Your task to perform on an android device: Play the last video I watched on Youtube Image 0: 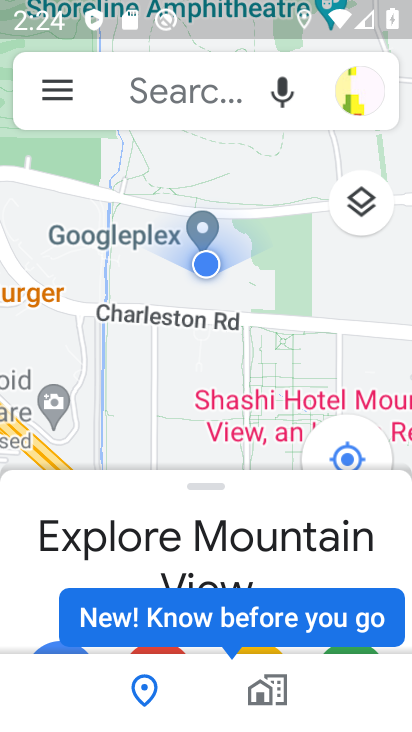
Step 0: press home button
Your task to perform on an android device: Play the last video I watched on Youtube Image 1: 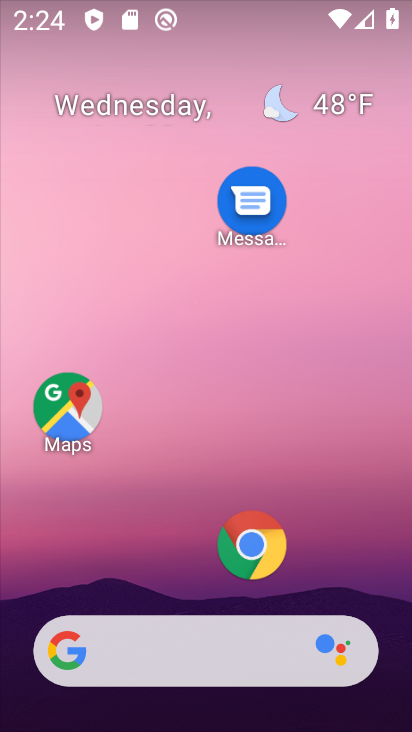
Step 1: drag from (107, 517) to (221, 6)
Your task to perform on an android device: Play the last video I watched on Youtube Image 2: 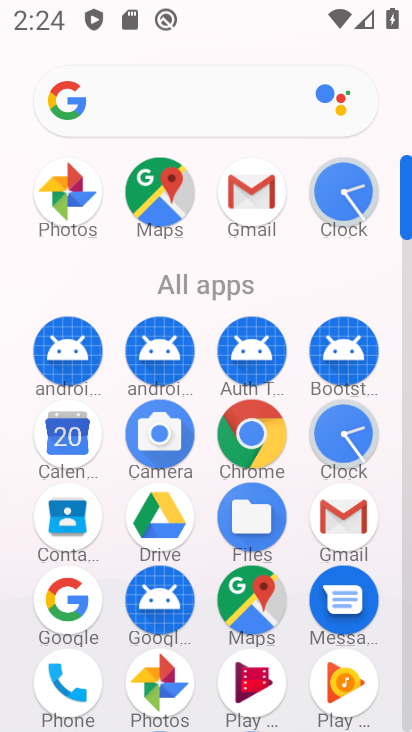
Step 2: drag from (205, 526) to (260, 170)
Your task to perform on an android device: Play the last video I watched on Youtube Image 3: 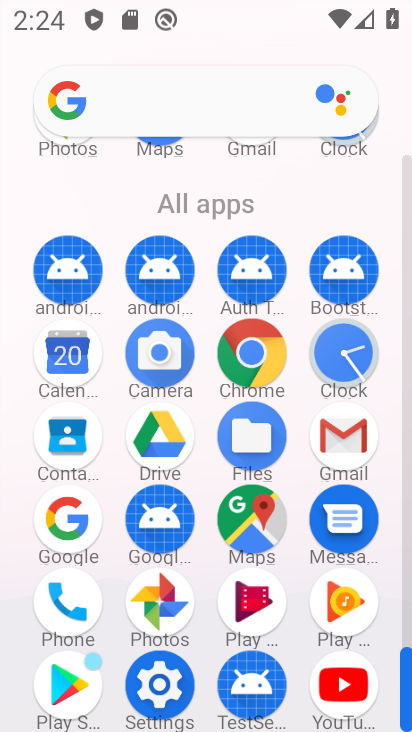
Step 3: click (336, 686)
Your task to perform on an android device: Play the last video I watched on Youtube Image 4: 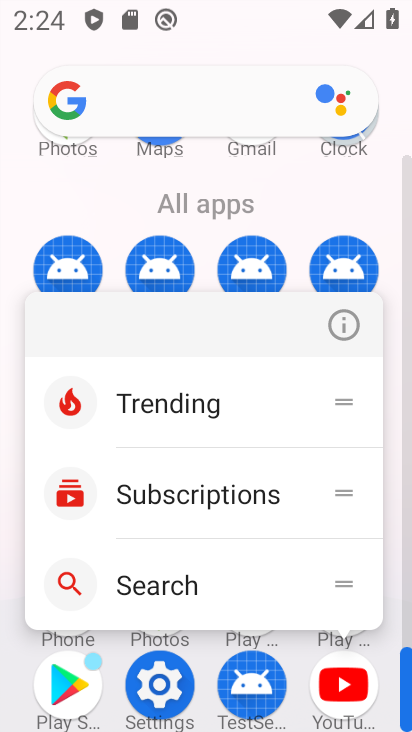
Step 4: click (330, 697)
Your task to perform on an android device: Play the last video I watched on Youtube Image 5: 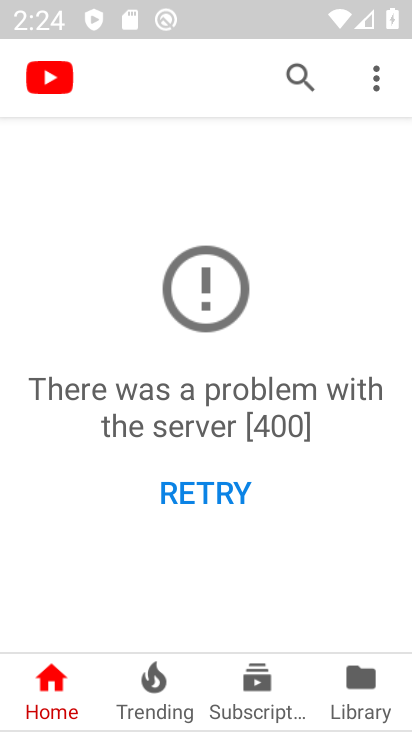
Step 5: click (360, 689)
Your task to perform on an android device: Play the last video I watched on Youtube Image 6: 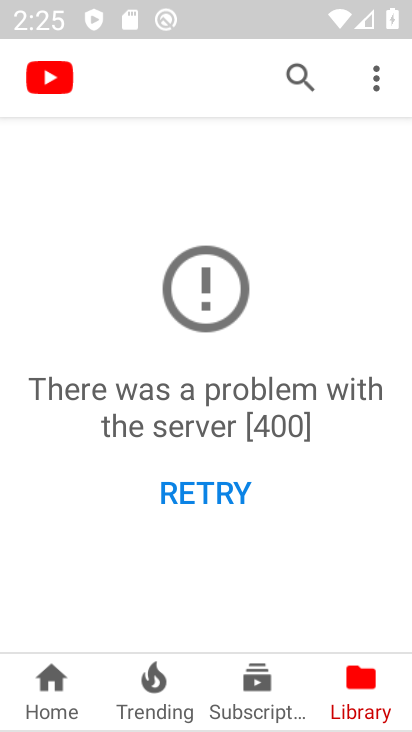
Step 6: task complete